Your task to perform on an android device: Open maps Image 0: 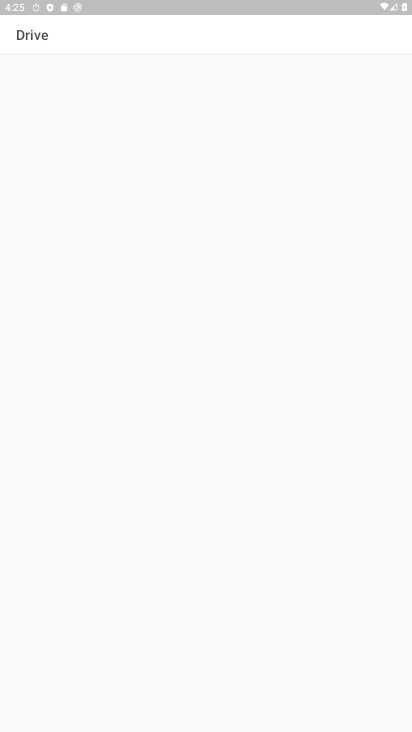
Step 0: press home button
Your task to perform on an android device: Open maps Image 1: 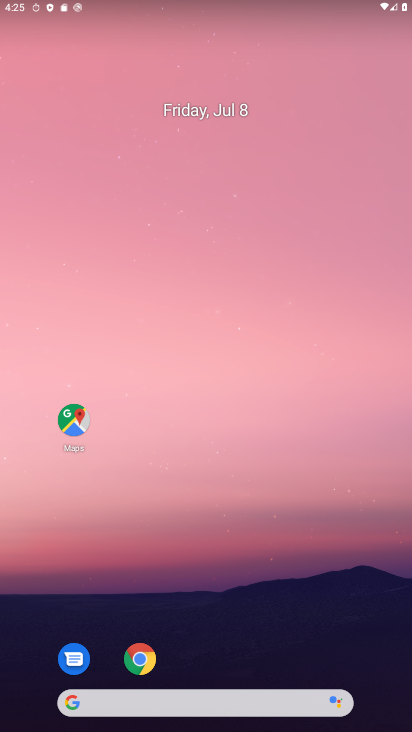
Step 1: drag from (259, 599) to (243, 142)
Your task to perform on an android device: Open maps Image 2: 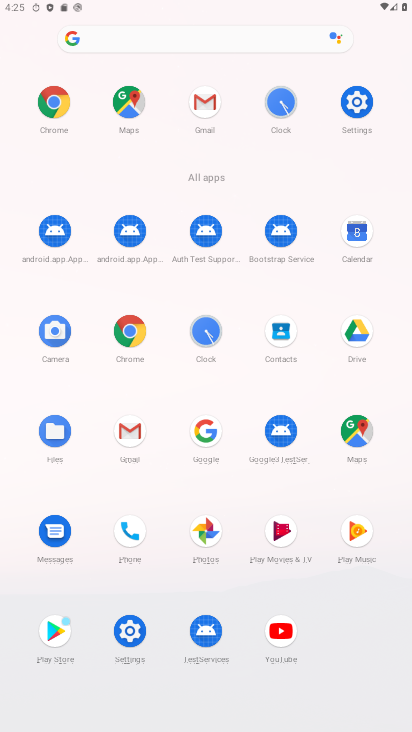
Step 2: click (133, 94)
Your task to perform on an android device: Open maps Image 3: 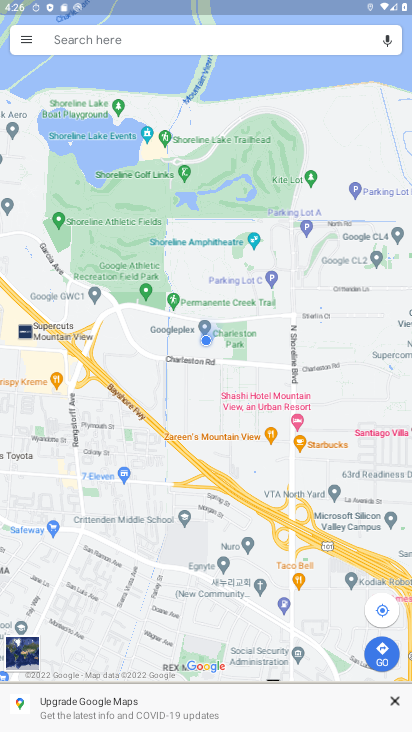
Step 3: task complete